Your task to perform on an android device: toggle translation in the chrome app Image 0: 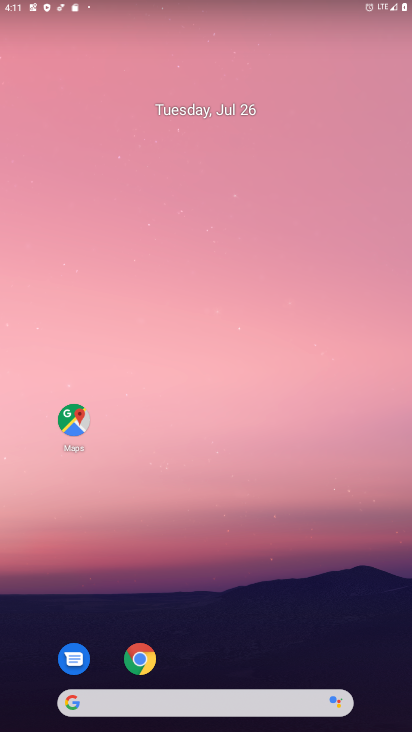
Step 0: press home button
Your task to perform on an android device: toggle translation in the chrome app Image 1: 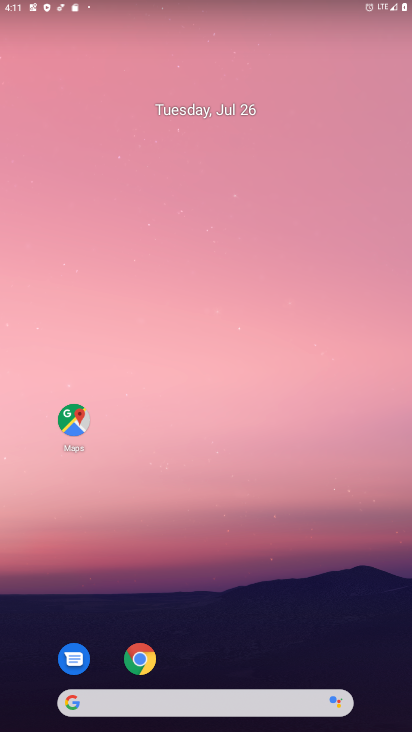
Step 1: drag from (204, 669) to (188, 47)
Your task to perform on an android device: toggle translation in the chrome app Image 2: 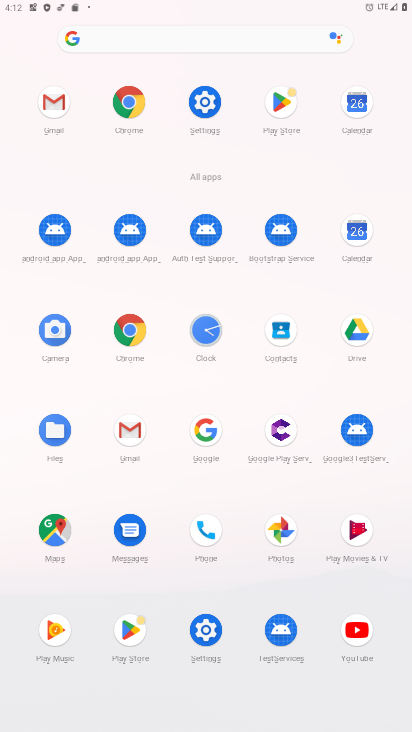
Step 2: click (128, 107)
Your task to perform on an android device: toggle translation in the chrome app Image 3: 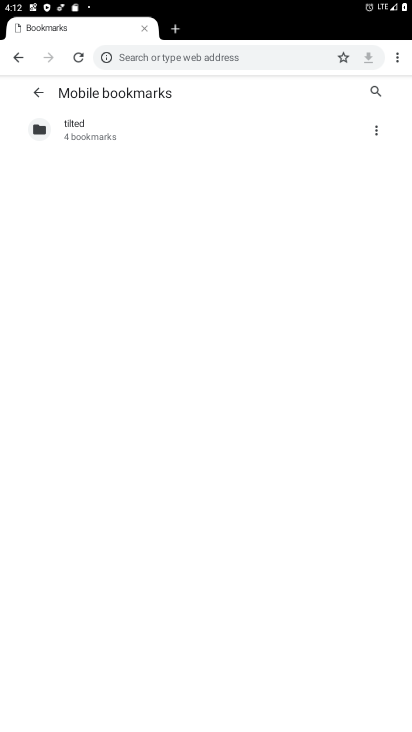
Step 3: drag from (403, 55) to (271, 285)
Your task to perform on an android device: toggle translation in the chrome app Image 4: 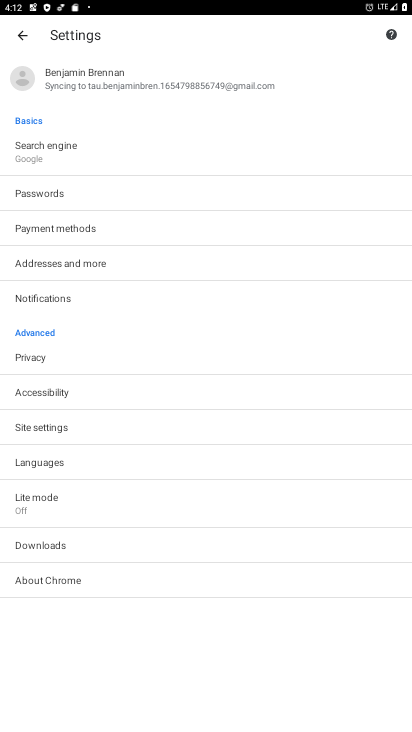
Step 4: click (28, 460)
Your task to perform on an android device: toggle translation in the chrome app Image 5: 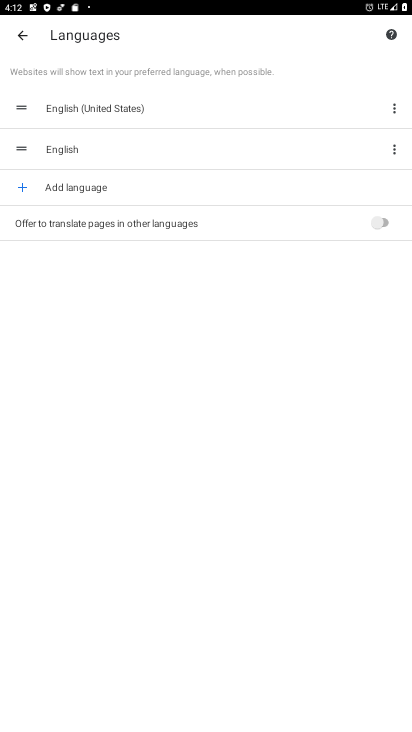
Step 5: click (381, 225)
Your task to perform on an android device: toggle translation in the chrome app Image 6: 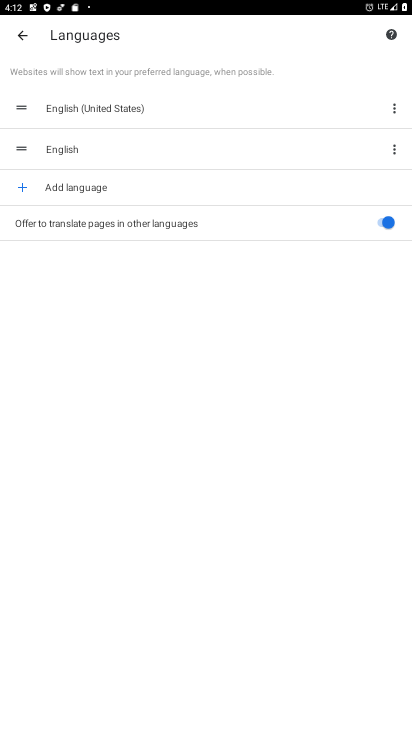
Step 6: task complete